Your task to perform on an android device: Open Yahoo.com Image 0: 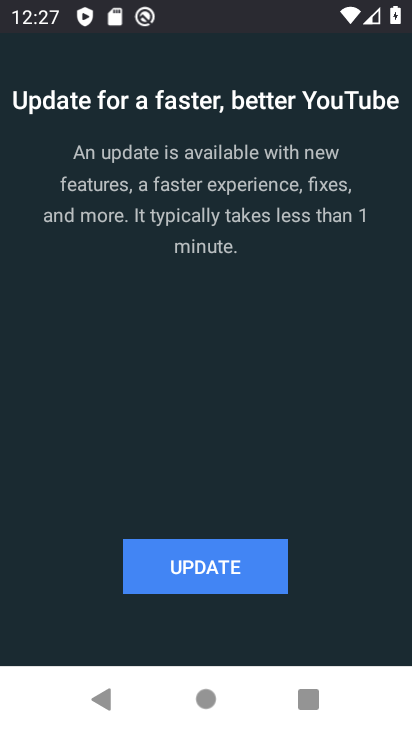
Step 0: press home button
Your task to perform on an android device: Open Yahoo.com Image 1: 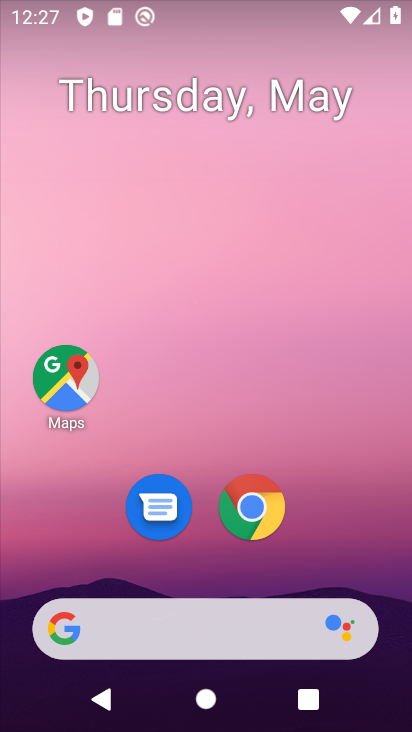
Step 1: click (244, 512)
Your task to perform on an android device: Open Yahoo.com Image 2: 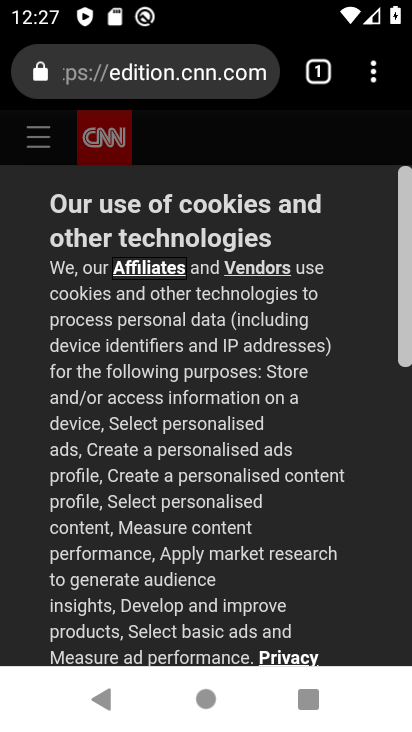
Step 2: click (374, 64)
Your task to perform on an android device: Open Yahoo.com Image 3: 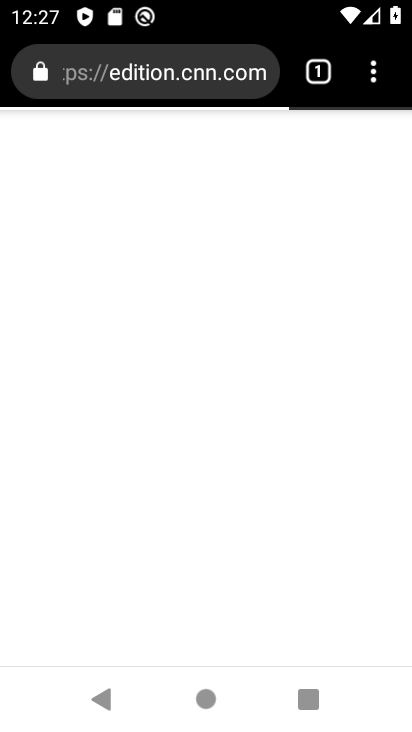
Step 3: click (323, 67)
Your task to perform on an android device: Open Yahoo.com Image 4: 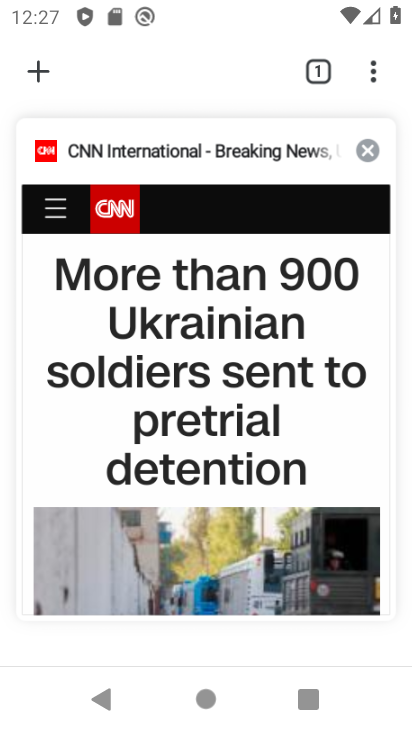
Step 4: click (362, 152)
Your task to perform on an android device: Open Yahoo.com Image 5: 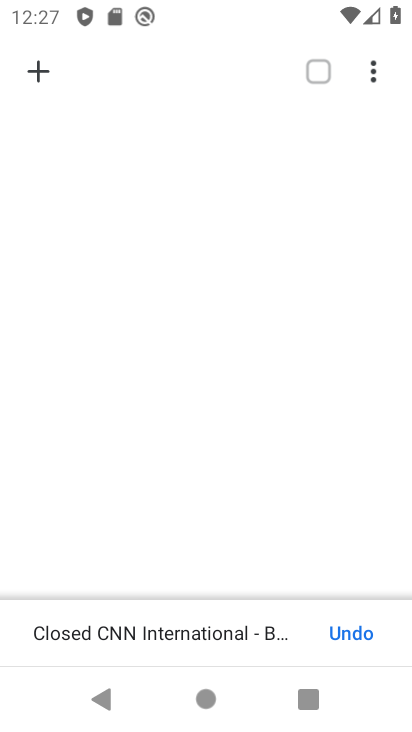
Step 5: click (42, 81)
Your task to perform on an android device: Open Yahoo.com Image 6: 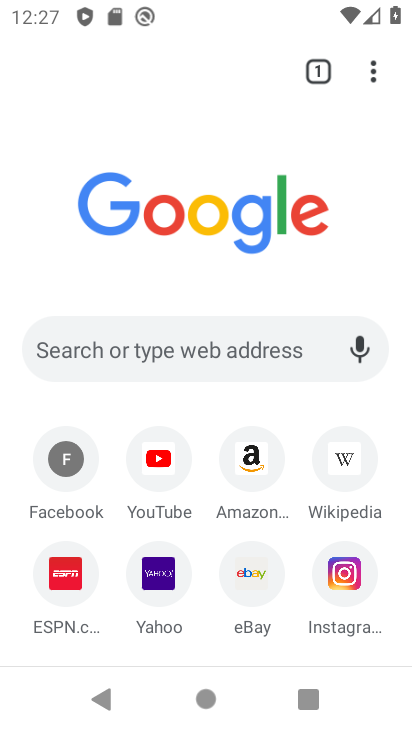
Step 6: click (161, 583)
Your task to perform on an android device: Open Yahoo.com Image 7: 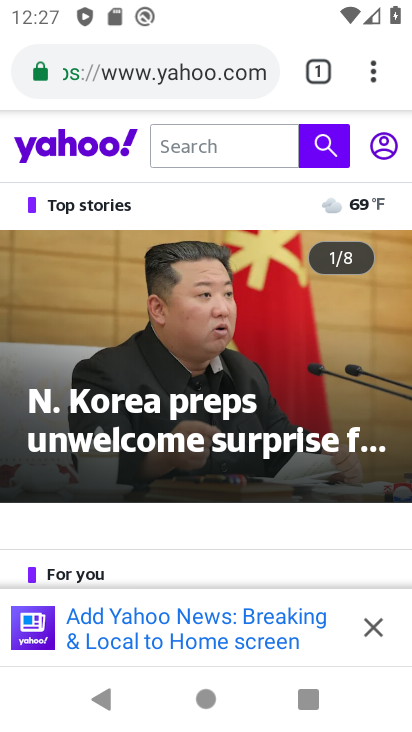
Step 7: task complete